Your task to perform on an android device: turn off picture-in-picture Image 0: 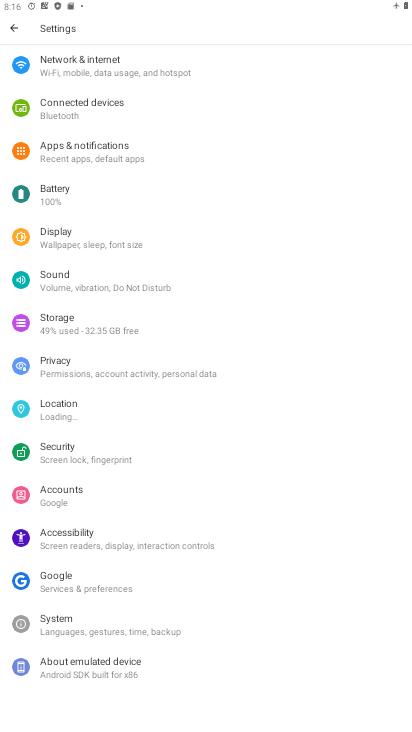
Step 0: click (365, 645)
Your task to perform on an android device: turn off picture-in-picture Image 1: 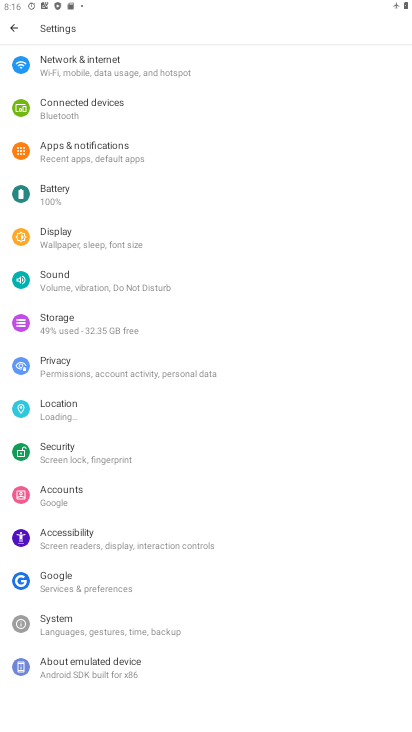
Step 1: press home button
Your task to perform on an android device: turn off picture-in-picture Image 2: 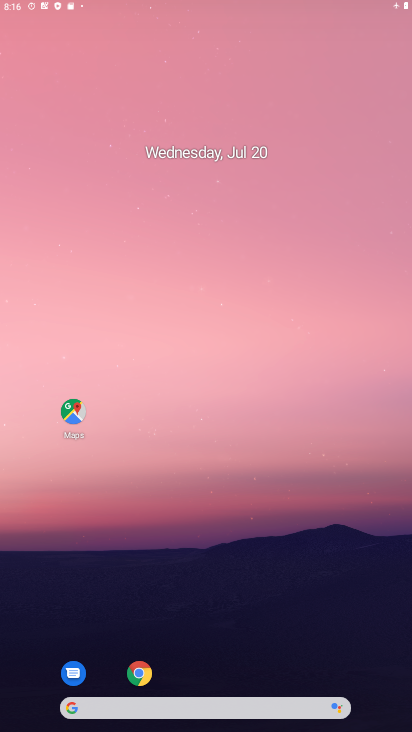
Step 2: drag from (334, 574) to (251, 136)
Your task to perform on an android device: turn off picture-in-picture Image 3: 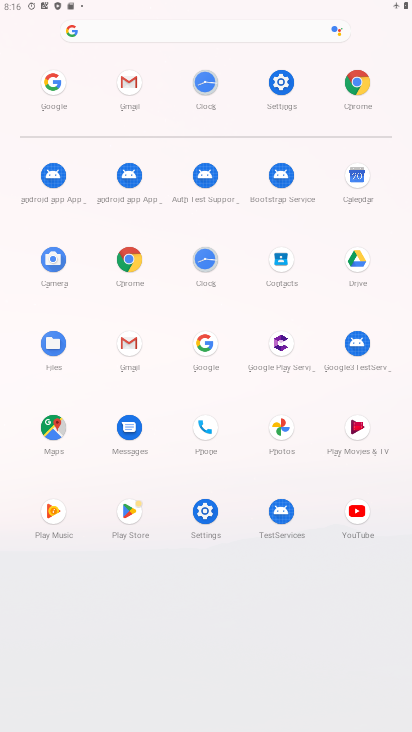
Step 3: click (343, 77)
Your task to perform on an android device: turn off picture-in-picture Image 4: 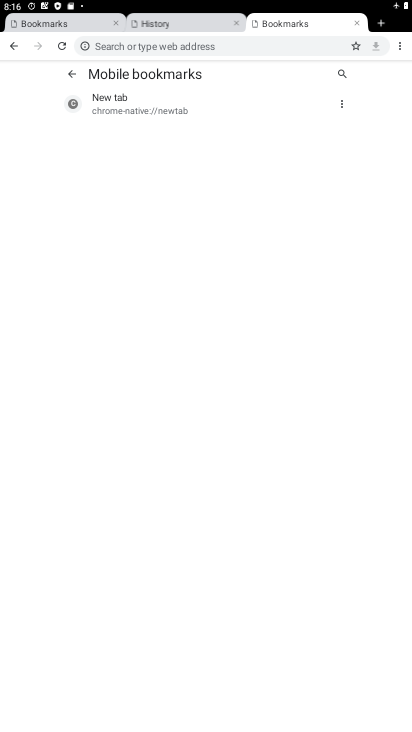
Step 4: task complete